Your task to perform on an android device: Open calendar and show me the third week of next month Image 0: 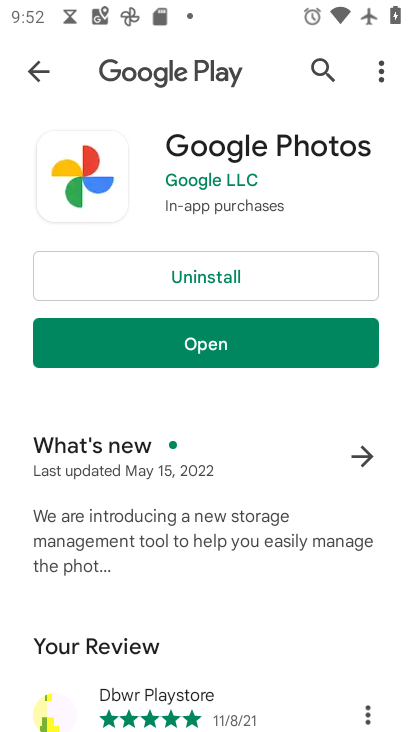
Step 0: press home button
Your task to perform on an android device: Open calendar and show me the third week of next month Image 1: 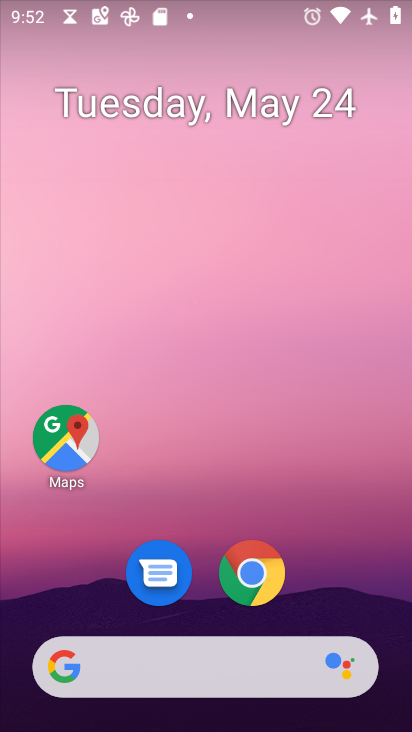
Step 1: drag from (326, 519) to (335, 19)
Your task to perform on an android device: Open calendar and show me the third week of next month Image 2: 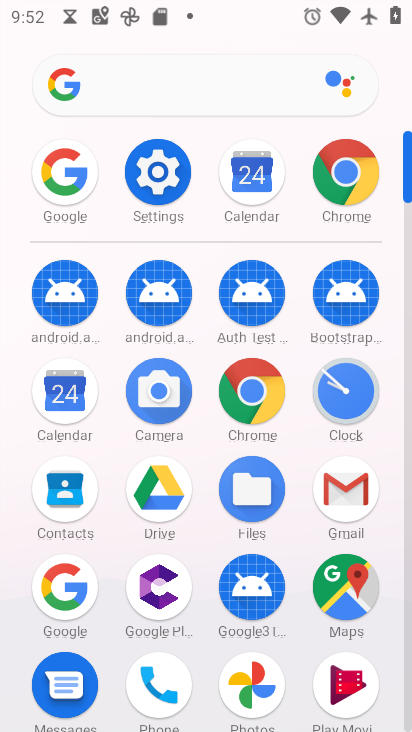
Step 2: click (48, 420)
Your task to perform on an android device: Open calendar and show me the third week of next month Image 3: 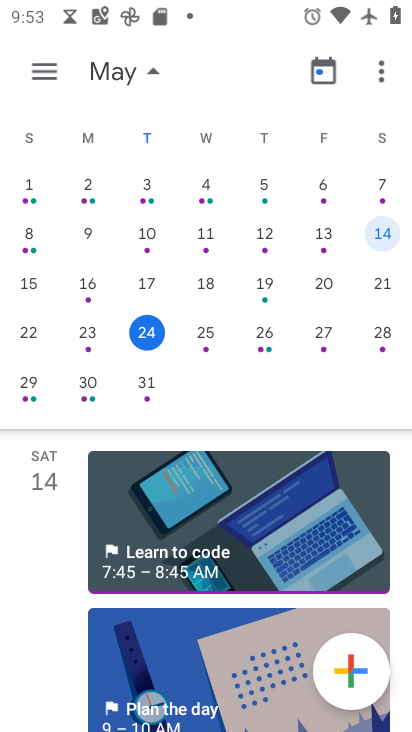
Step 3: drag from (325, 293) to (7, 250)
Your task to perform on an android device: Open calendar and show me the third week of next month Image 4: 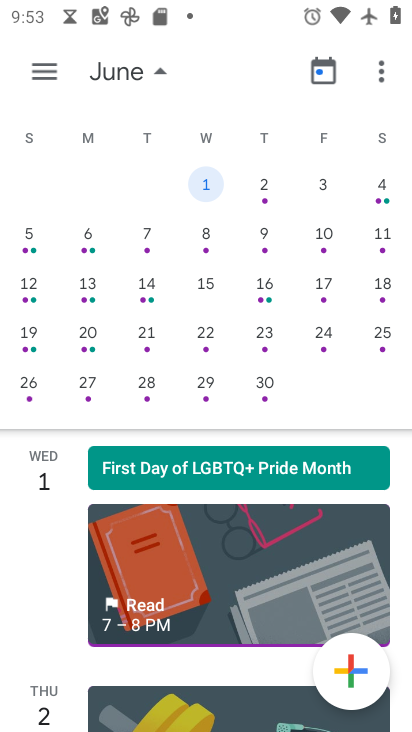
Step 4: click (152, 337)
Your task to perform on an android device: Open calendar and show me the third week of next month Image 5: 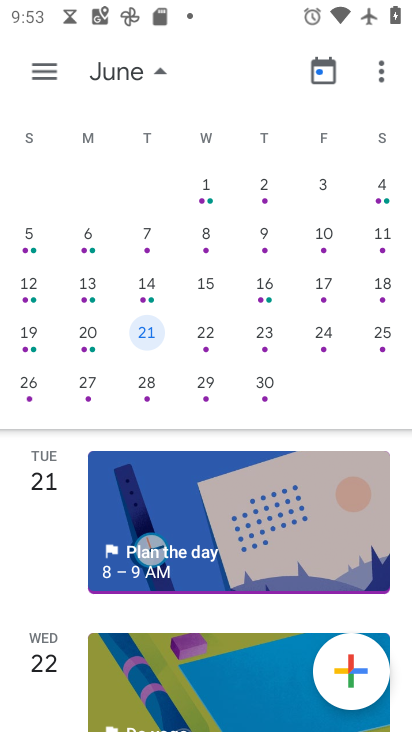
Step 5: task complete